Your task to perform on an android device: Do I have any events today? Image 0: 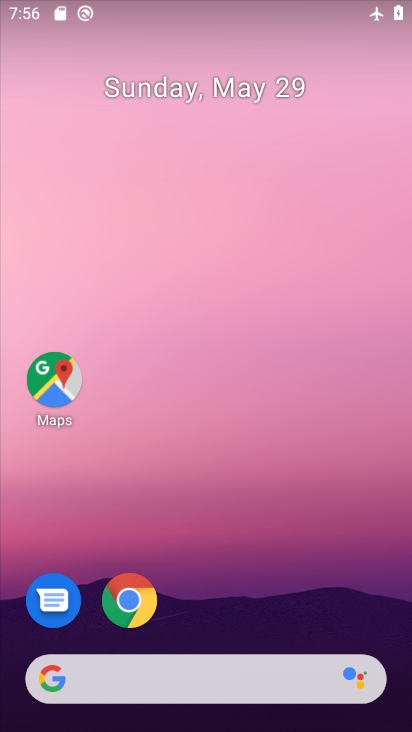
Step 0: drag from (204, 639) to (241, 163)
Your task to perform on an android device: Do I have any events today? Image 1: 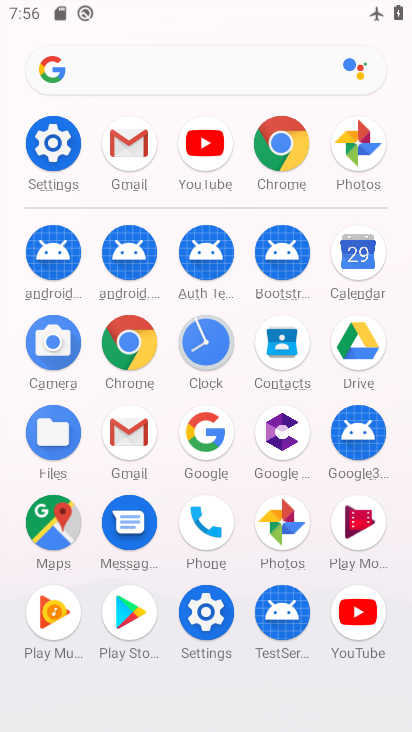
Step 1: click (289, 352)
Your task to perform on an android device: Do I have any events today? Image 2: 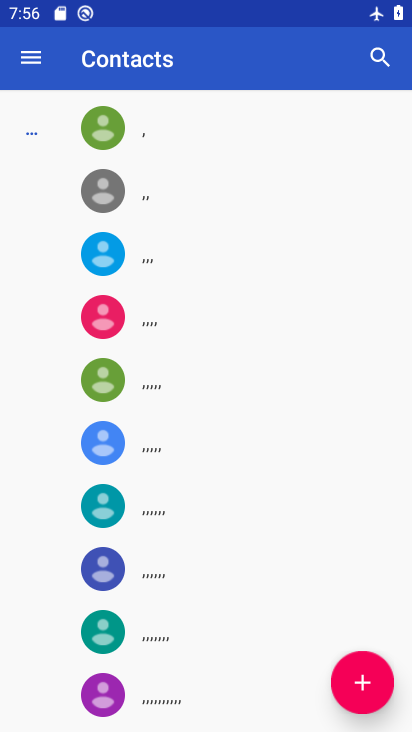
Step 2: press home button
Your task to perform on an android device: Do I have any events today? Image 3: 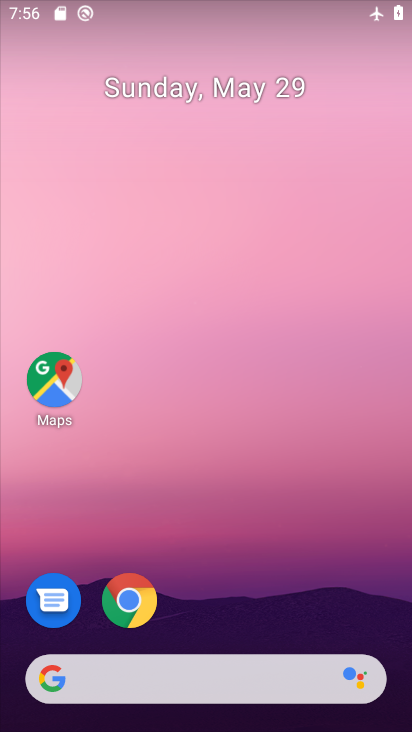
Step 3: drag from (269, 603) to (313, 45)
Your task to perform on an android device: Do I have any events today? Image 4: 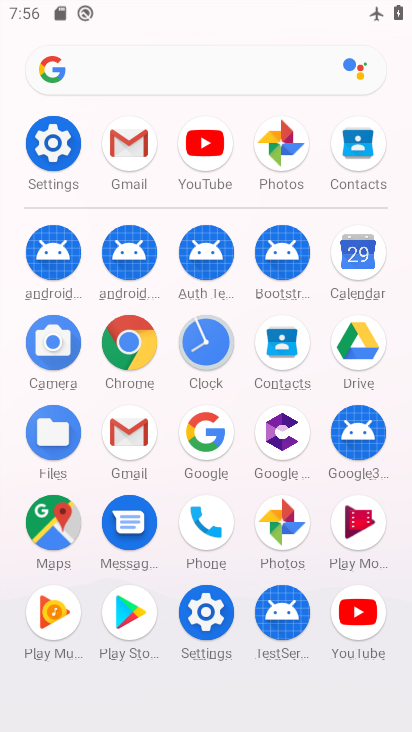
Step 4: click (360, 258)
Your task to perform on an android device: Do I have any events today? Image 5: 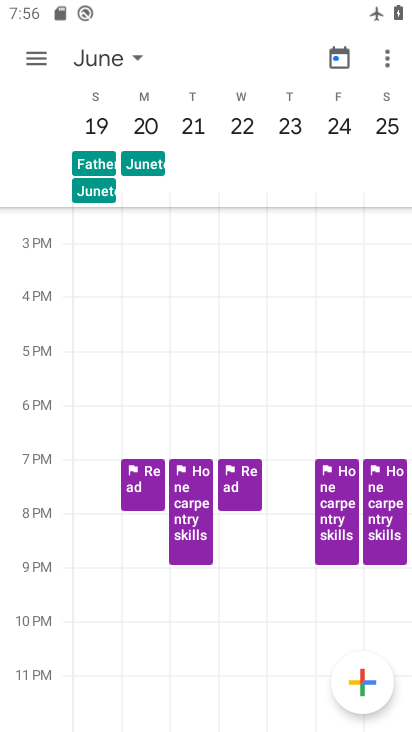
Step 5: drag from (139, 125) to (376, 187)
Your task to perform on an android device: Do I have any events today? Image 6: 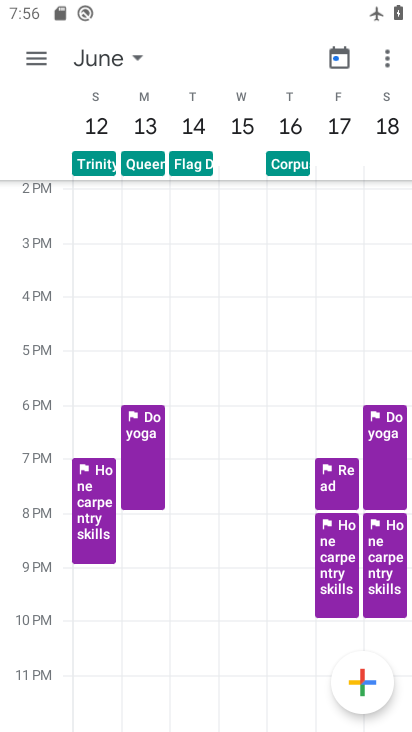
Step 6: drag from (98, 154) to (402, 137)
Your task to perform on an android device: Do I have any events today? Image 7: 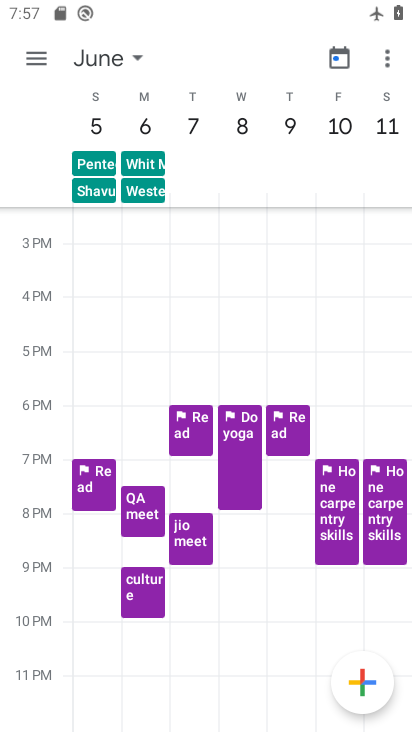
Step 7: drag from (122, 172) to (358, 197)
Your task to perform on an android device: Do I have any events today? Image 8: 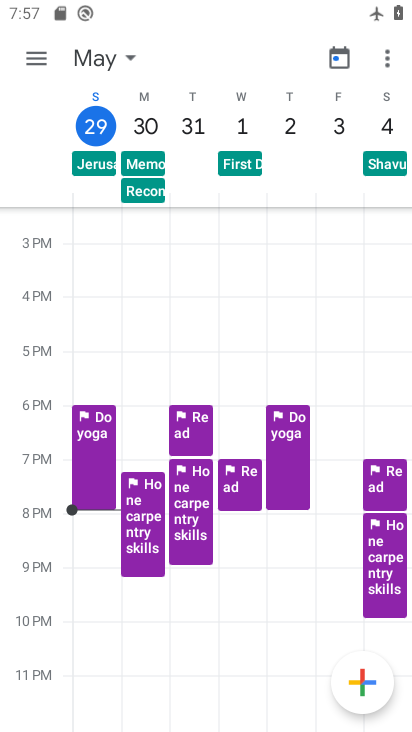
Step 8: click (28, 59)
Your task to perform on an android device: Do I have any events today? Image 9: 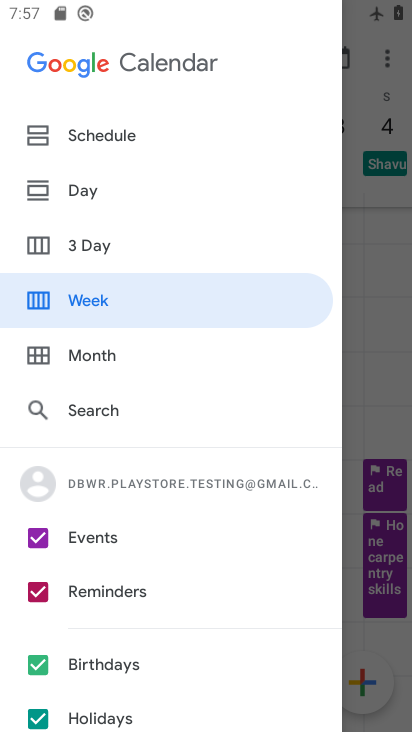
Step 9: click (117, 595)
Your task to perform on an android device: Do I have any events today? Image 10: 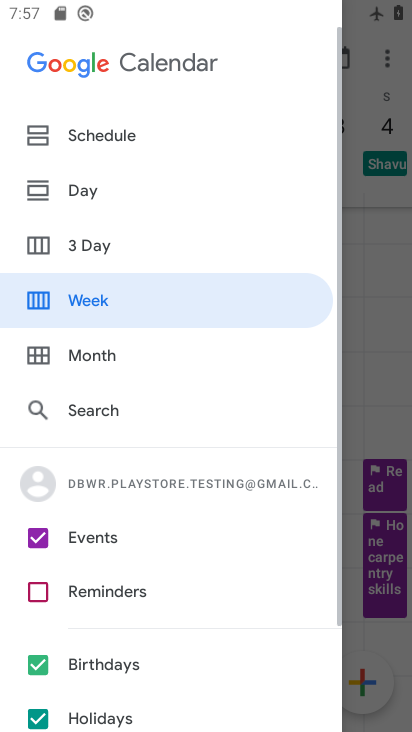
Step 10: click (106, 675)
Your task to perform on an android device: Do I have any events today? Image 11: 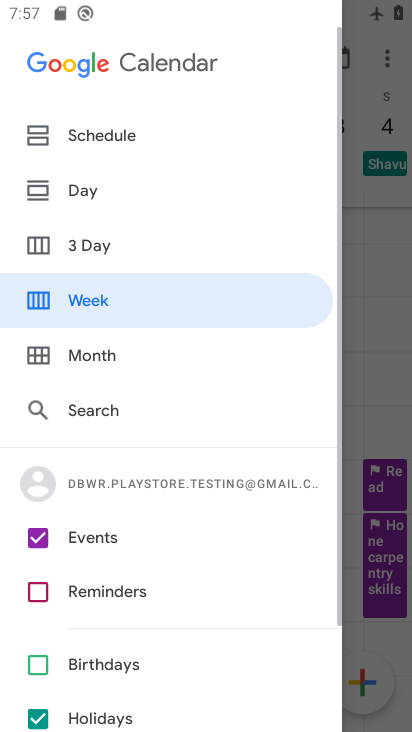
Step 11: drag from (207, 667) to (219, 449)
Your task to perform on an android device: Do I have any events today? Image 12: 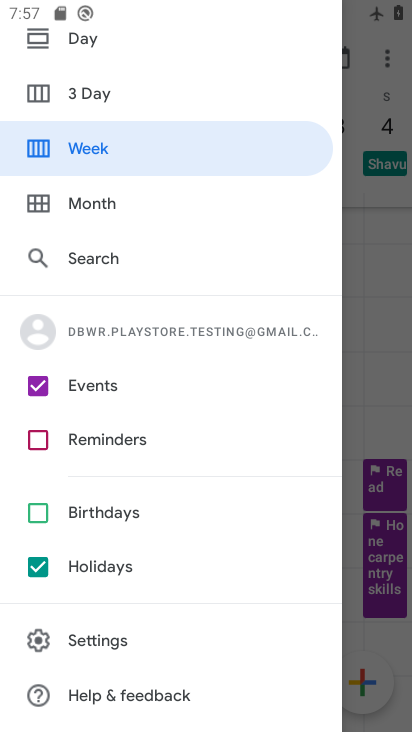
Step 12: click (85, 562)
Your task to perform on an android device: Do I have any events today? Image 13: 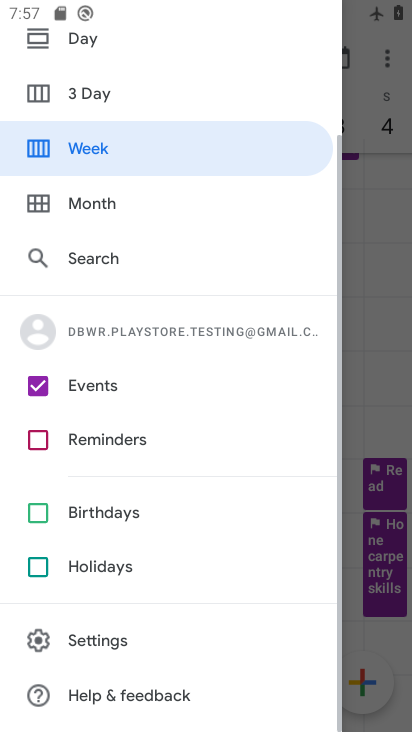
Step 13: click (173, 152)
Your task to perform on an android device: Do I have any events today? Image 14: 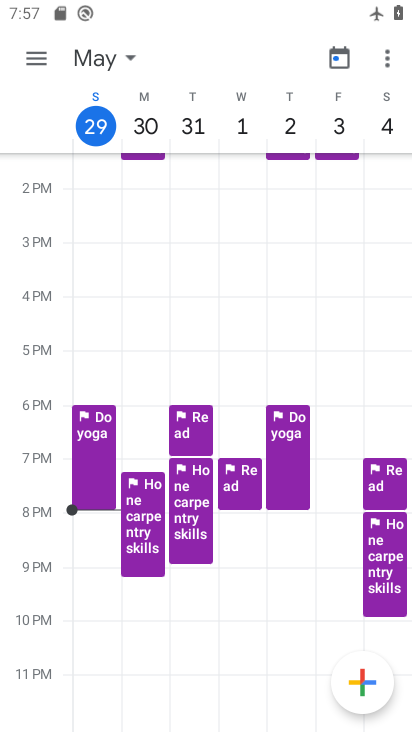
Step 14: click (27, 62)
Your task to perform on an android device: Do I have any events today? Image 15: 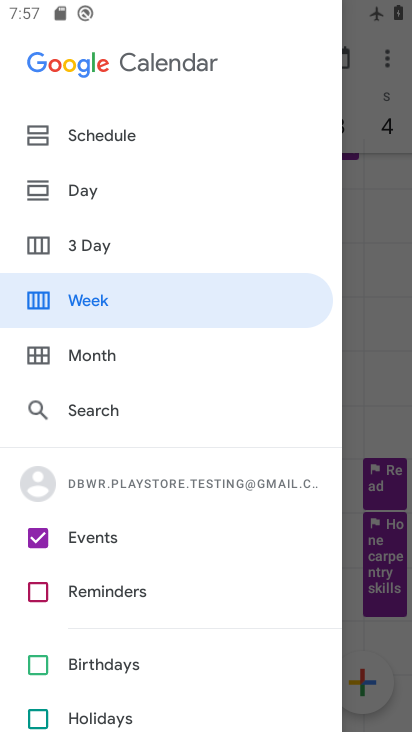
Step 15: click (103, 246)
Your task to perform on an android device: Do I have any events today? Image 16: 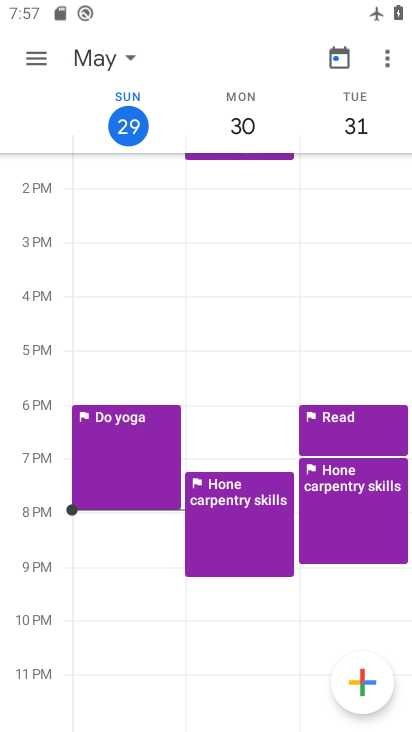
Step 16: task complete